Your task to perform on an android device: check battery use Image 0: 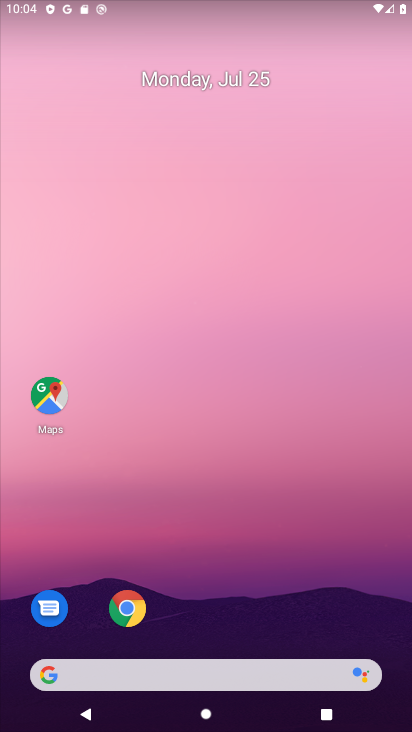
Step 0: drag from (206, 649) to (277, 48)
Your task to perform on an android device: check battery use Image 1: 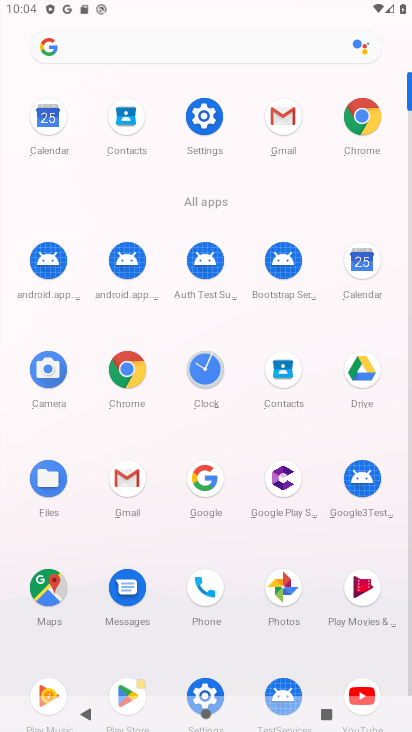
Step 1: click (212, 128)
Your task to perform on an android device: check battery use Image 2: 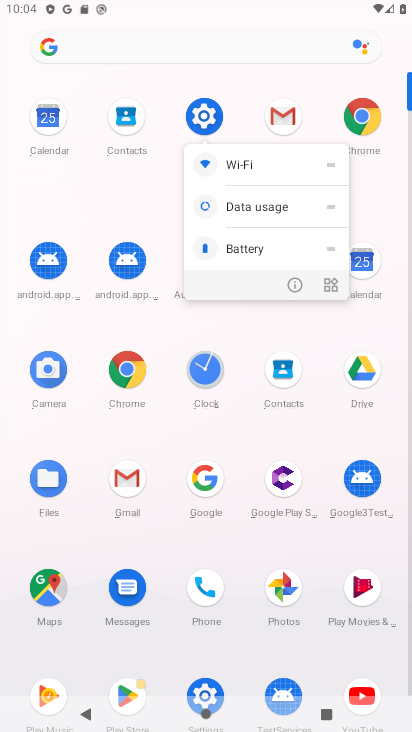
Step 2: click (209, 119)
Your task to perform on an android device: check battery use Image 3: 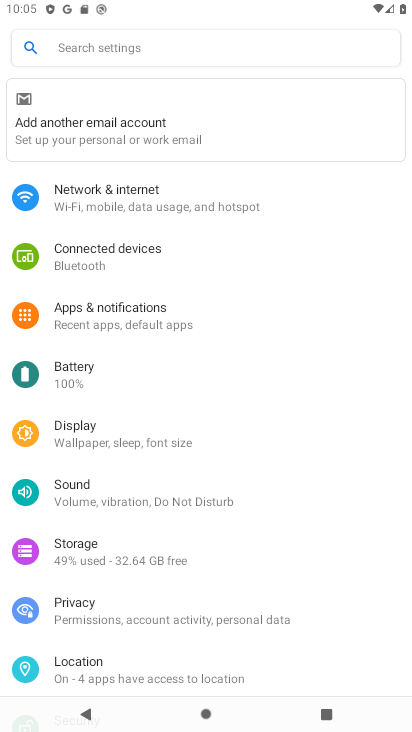
Step 3: click (102, 372)
Your task to perform on an android device: check battery use Image 4: 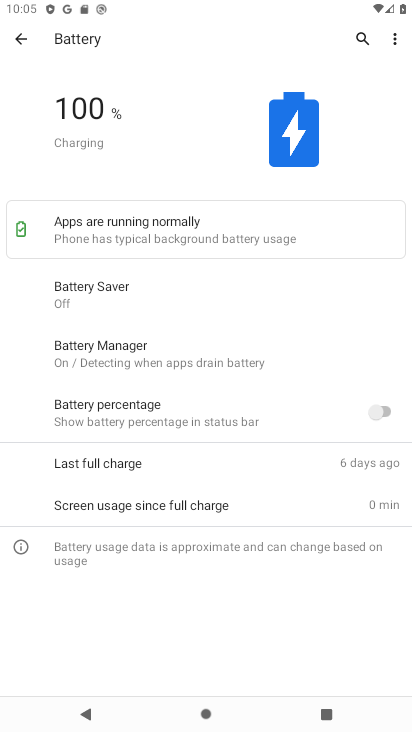
Step 4: task complete